Your task to perform on an android device: Open calendar and show me the fourth week of next month Image 0: 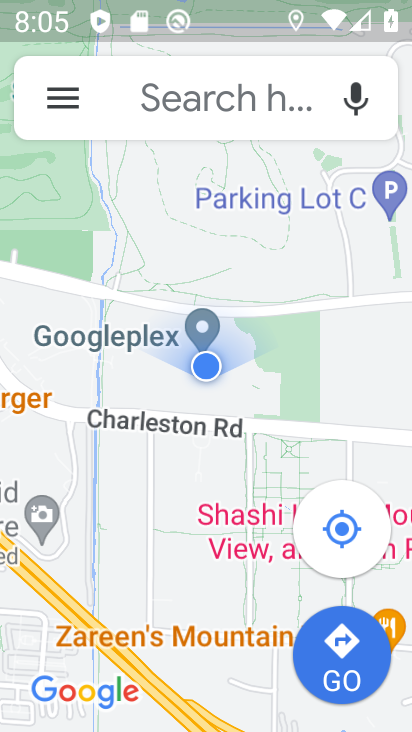
Step 0: press back button
Your task to perform on an android device: Open calendar and show me the fourth week of next month Image 1: 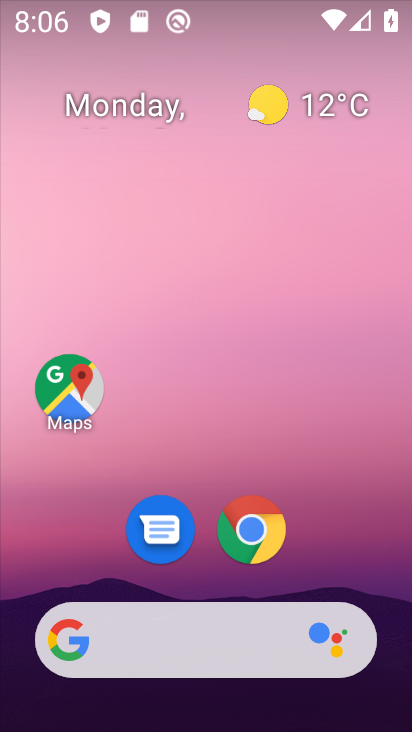
Step 1: drag from (196, 625) to (171, 150)
Your task to perform on an android device: Open calendar and show me the fourth week of next month Image 2: 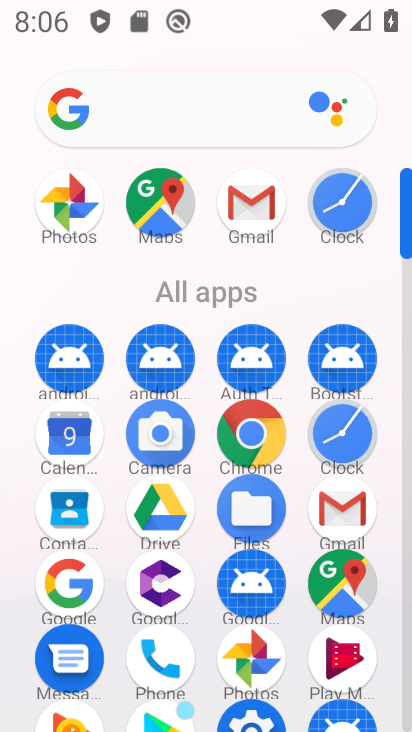
Step 2: click (53, 432)
Your task to perform on an android device: Open calendar and show me the fourth week of next month Image 3: 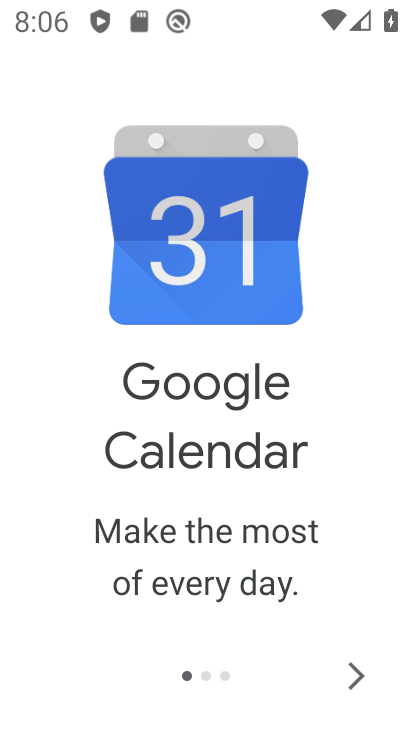
Step 3: click (355, 683)
Your task to perform on an android device: Open calendar and show me the fourth week of next month Image 4: 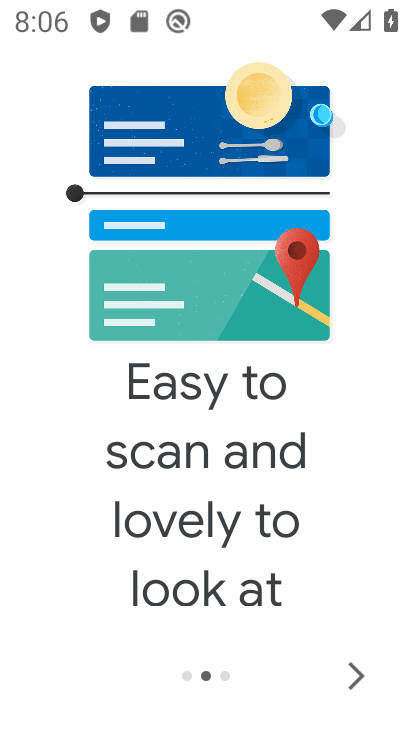
Step 4: click (357, 678)
Your task to perform on an android device: Open calendar and show me the fourth week of next month Image 5: 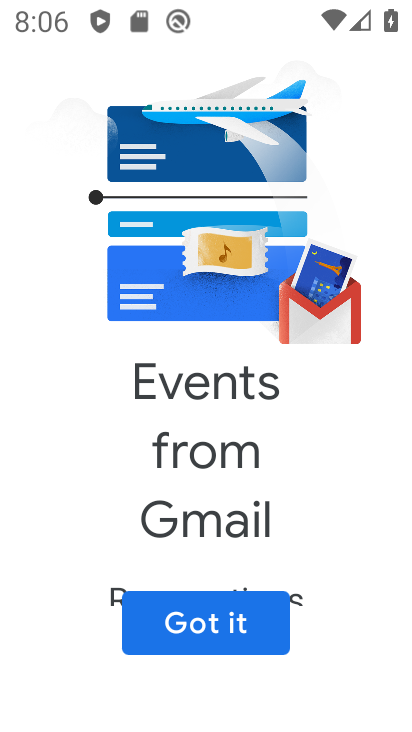
Step 5: click (258, 635)
Your task to perform on an android device: Open calendar and show me the fourth week of next month Image 6: 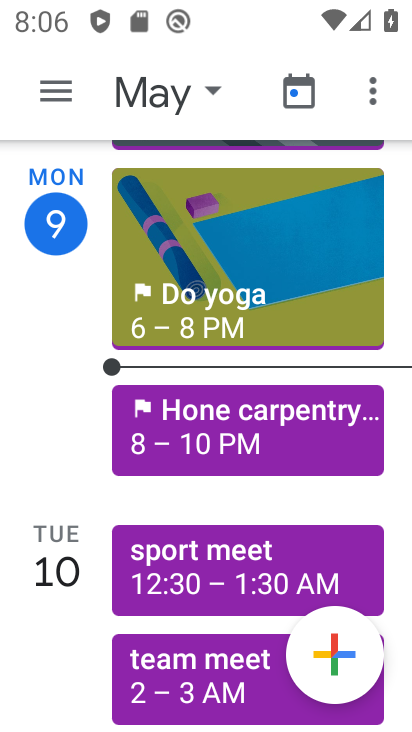
Step 6: click (67, 92)
Your task to perform on an android device: Open calendar and show me the fourth week of next month Image 7: 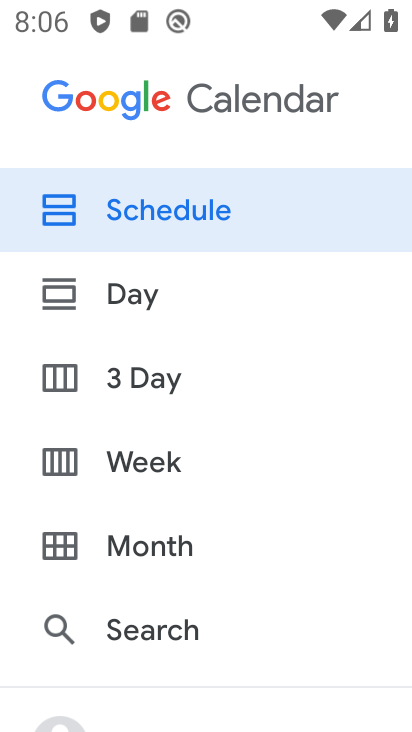
Step 7: click (146, 537)
Your task to perform on an android device: Open calendar and show me the fourth week of next month Image 8: 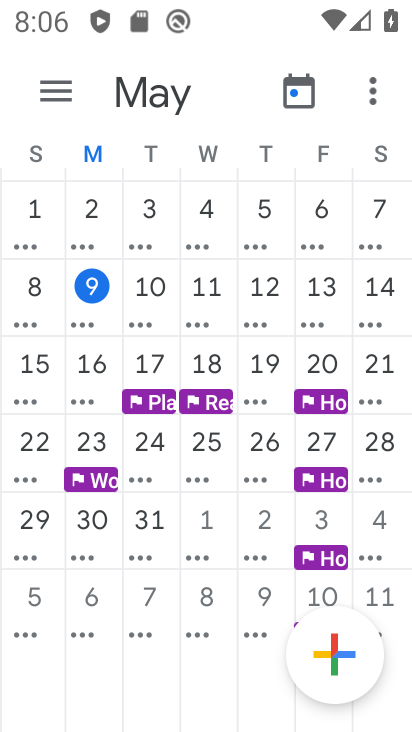
Step 8: task complete